Your task to perform on an android device: turn notification dots off Image 0: 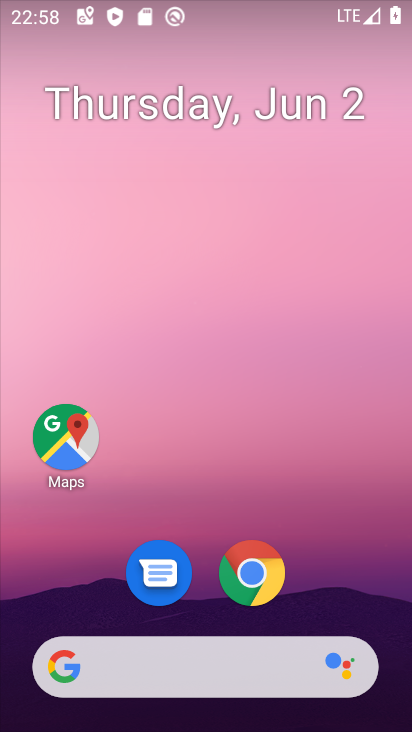
Step 0: drag from (14, 253) to (287, 39)
Your task to perform on an android device: turn notification dots off Image 1: 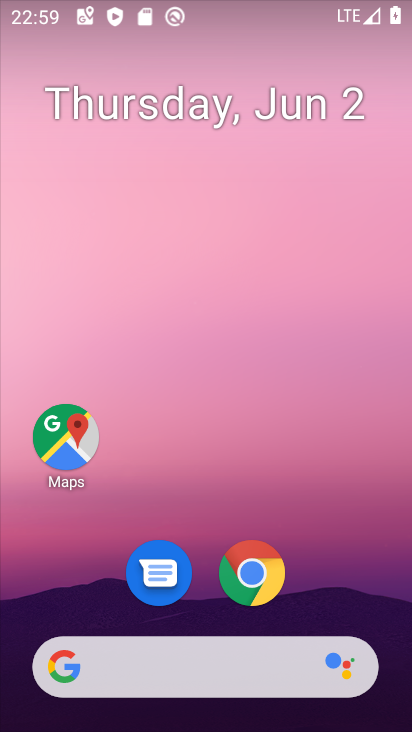
Step 1: drag from (308, 509) to (297, 67)
Your task to perform on an android device: turn notification dots off Image 2: 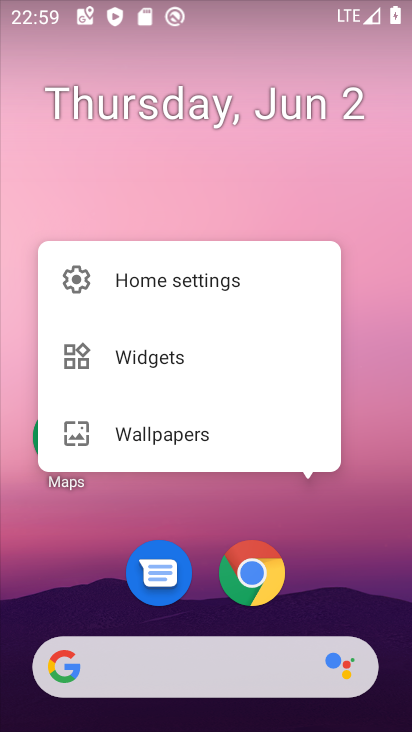
Step 2: press back button
Your task to perform on an android device: turn notification dots off Image 3: 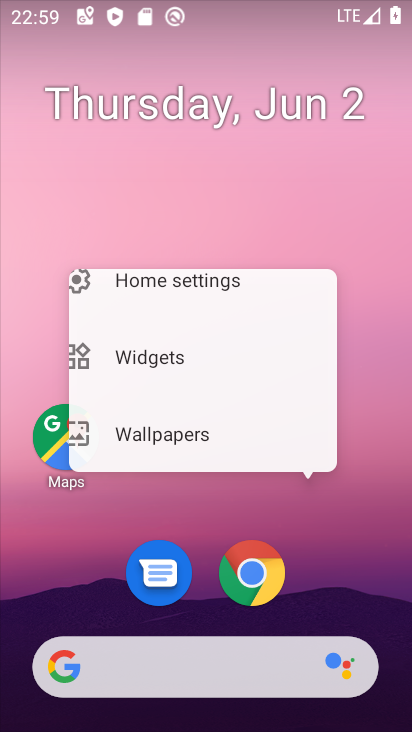
Step 3: press back button
Your task to perform on an android device: turn notification dots off Image 4: 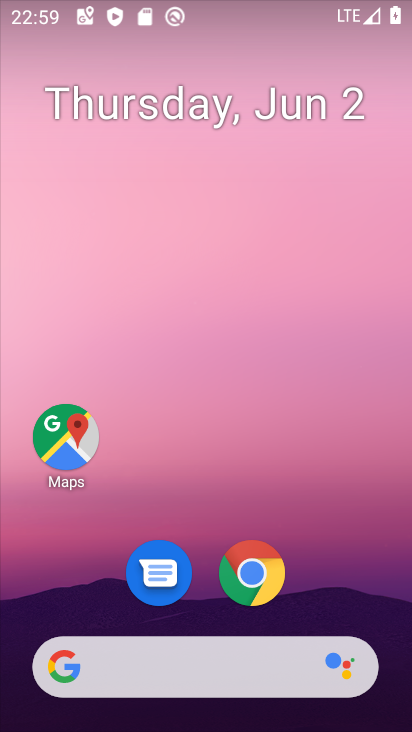
Step 4: drag from (354, 416) to (350, 129)
Your task to perform on an android device: turn notification dots off Image 5: 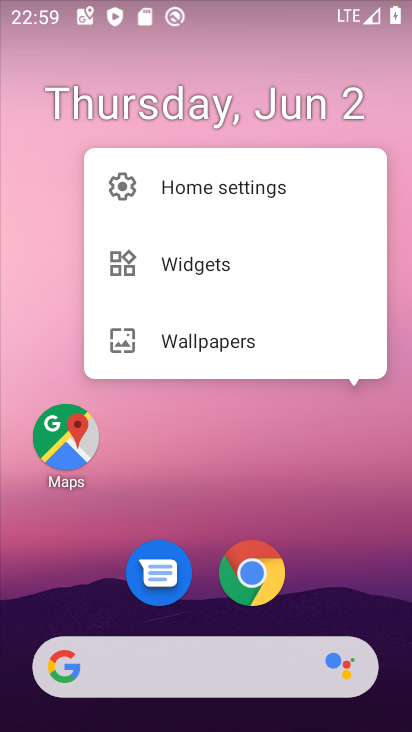
Step 5: click (354, 571)
Your task to perform on an android device: turn notification dots off Image 6: 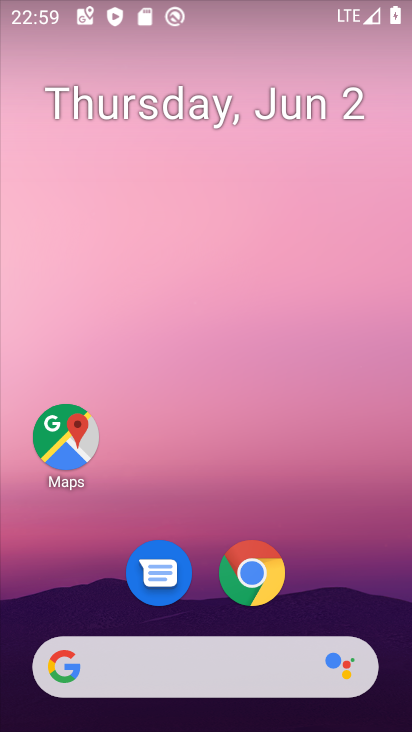
Step 6: click (354, 571)
Your task to perform on an android device: turn notification dots off Image 7: 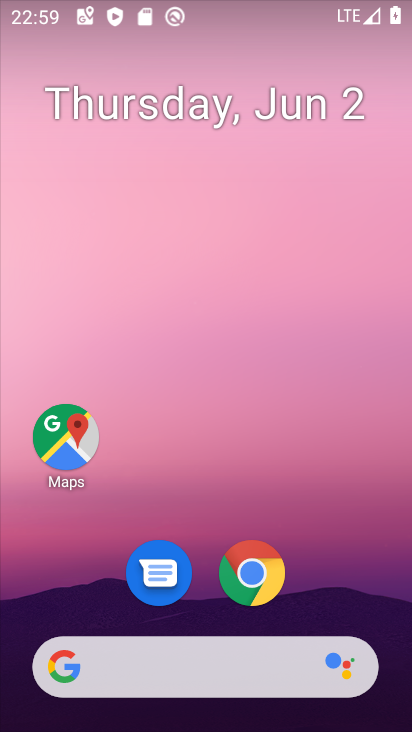
Step 7: click (354, 571)
Your task to perform on an android device: turn notification dots off Image 8: 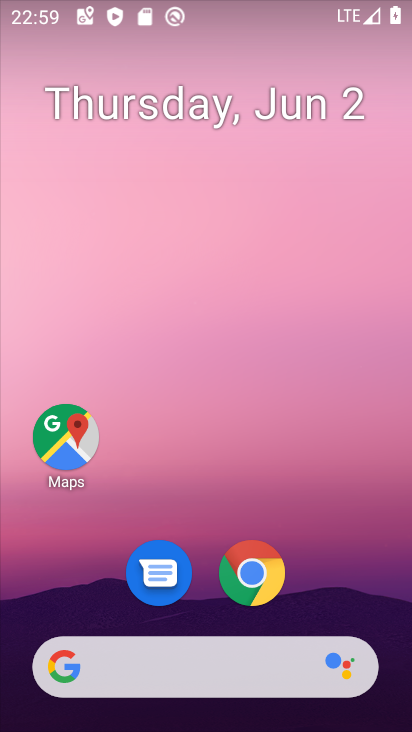
Step 8: drag from (379, 721) to (355, 214)
Your task to perform on an android device: turn notification dots off Image 9: 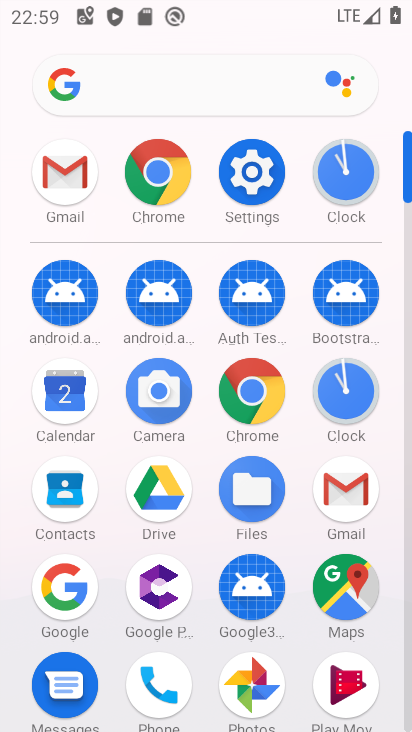
Step 9: click (240, 191)
Your task to perform on an android device: turn notification dots off Image 10: 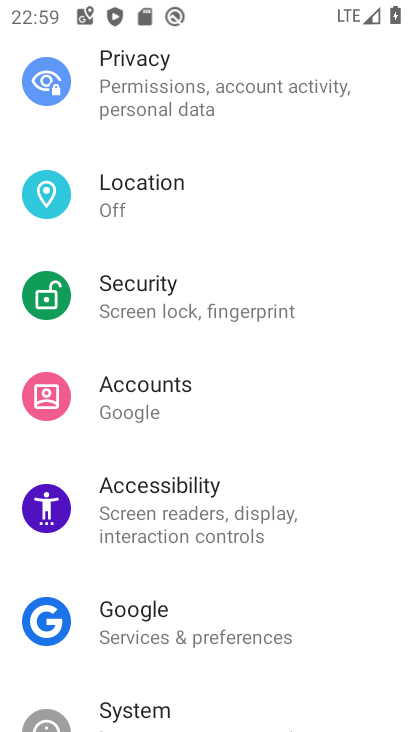
Step 10: drag from (291, 197) to (267, 690)
Your task to perform on an android device: turn notification dots off Image 11: 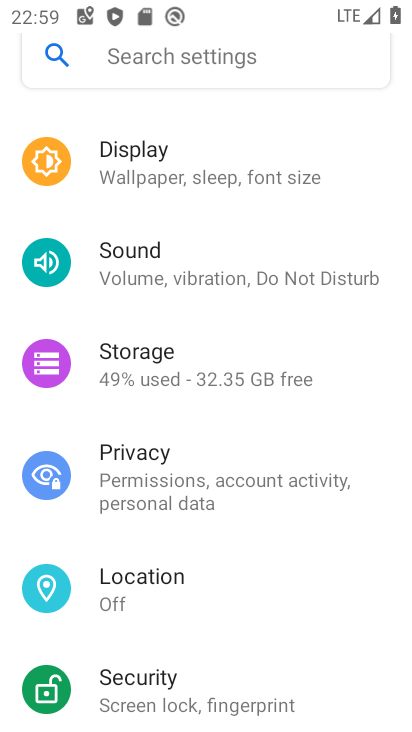
Step 11: drag from (369, 341) to (204, 686)
Your task to perform on an android device: turn notification dots off Image 12: 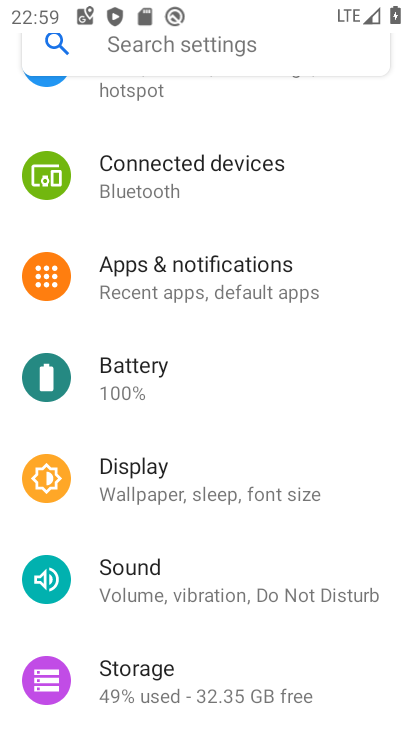
Step 12: click (278, 311)
Your task to perform on an android device: turn notification dots off Image 13: 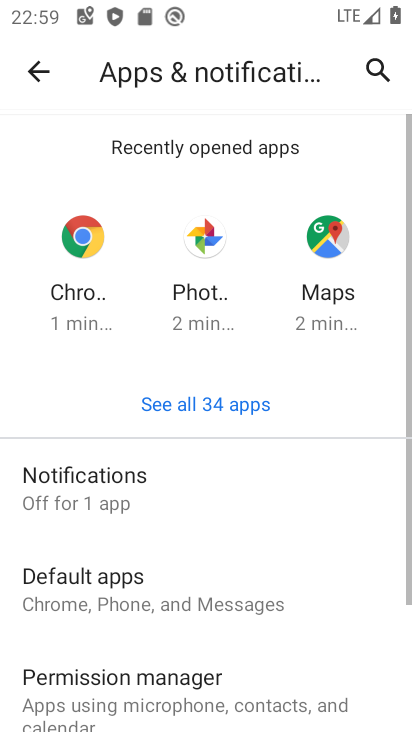
Step 13: click (144, 476)
Your task to perform on an android device: turn notification dots off Image 14: 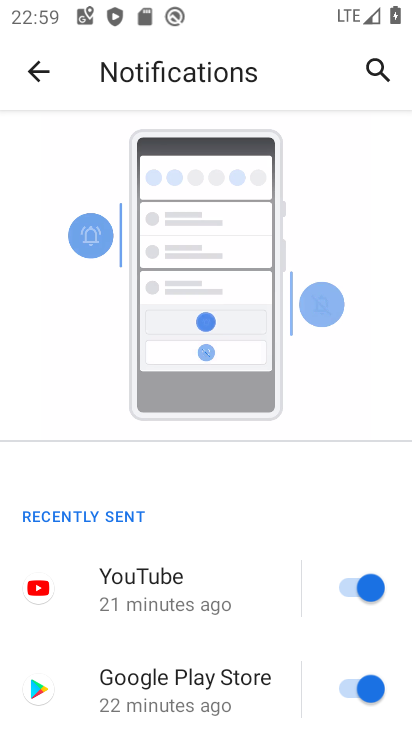
Step 14: drag from (249, 663) to (261, 403)
Your task to perform on an android device: turn notification dots off Image 15: 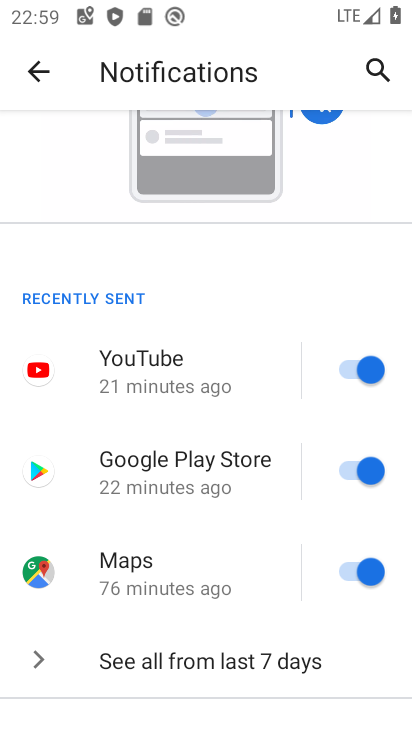
Step 15: drag from (261, 642) to (258, 392)
Your task to perform on an android device: turn notification dots off Image 16: 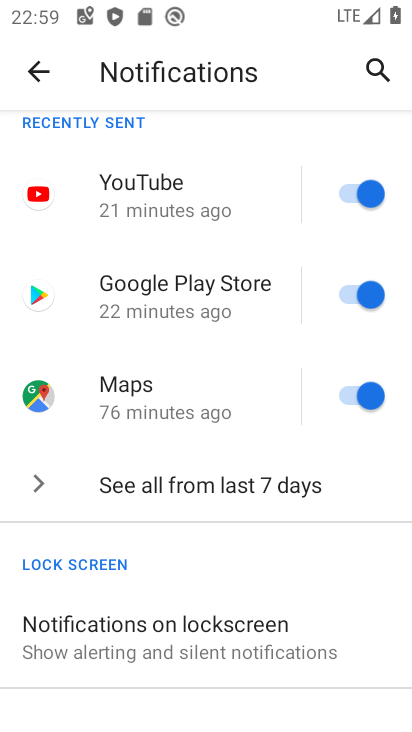
Step 16: click (165, 632)
Your task to perform on an android device: turn notification dots off Image 17: 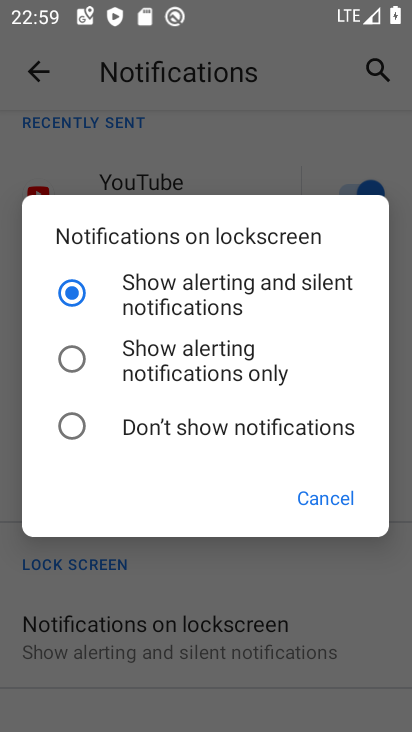
Step 17: click (322, 495)
Your task to perform on an android device: turn notification dots off Image 18: 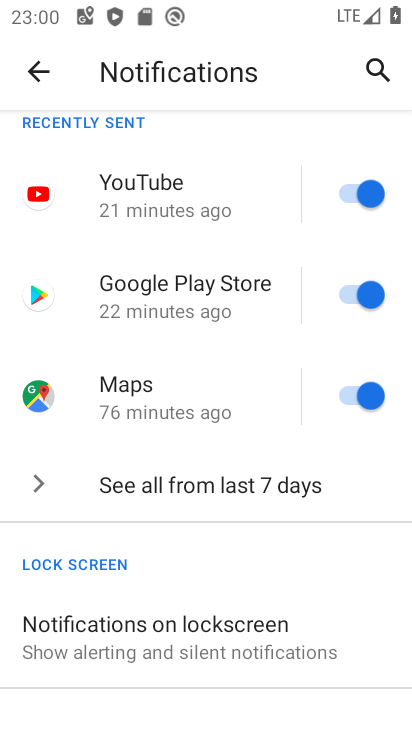
Step 18: drag from (368, 683) to (302, 143)
Your task to perform on an android device: turn notification dots off Image 19: 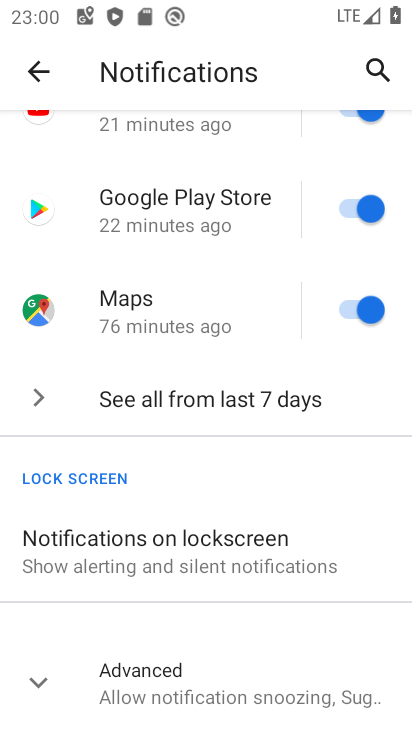
Step 19: click (161, 647)
Your task to perform on an android device: turn notification dots off Image 20: 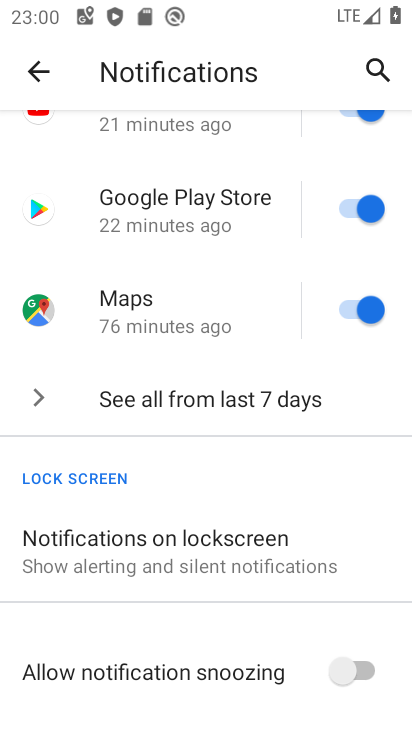
Step 20: drag from (219, 713) to (153, 279)
Your task to perform on an android device: turn notification dots off Image 21: 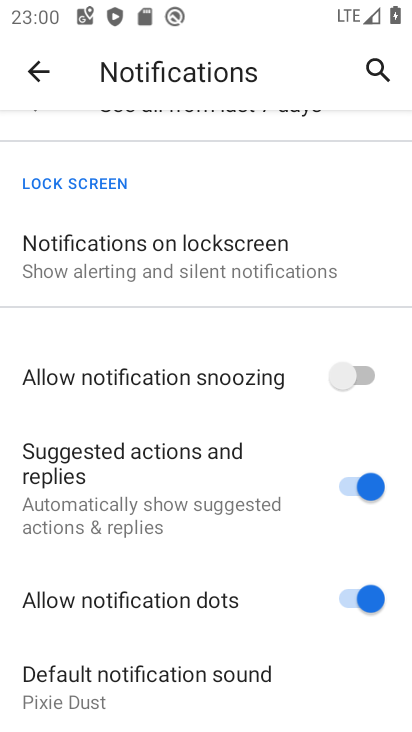
Step 21: click (355, 592)
Your task to perform on an android device: turn notification dots off Image 22: 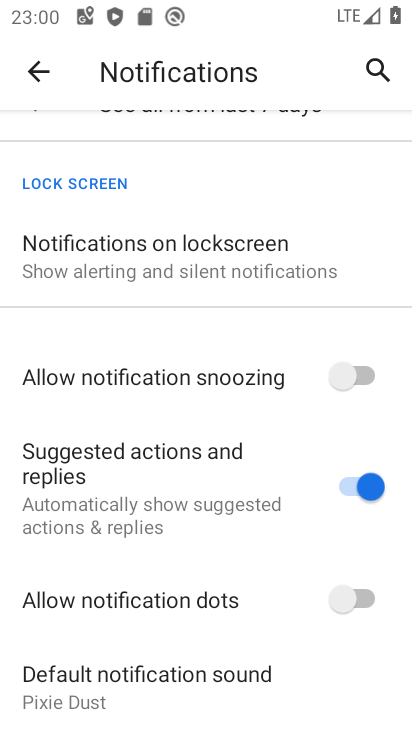
Step 22: task complete